Your task to perform on an android device: Open calendar and show me the third week of next month Image 0: 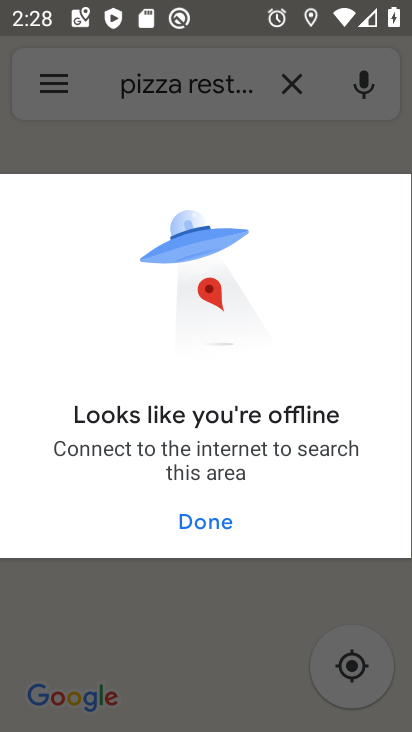
Step 0: drag from (212, 666) to (319, 217)
Your task to perform on an android device: Open calendar and show me the third week of next month Image 1: 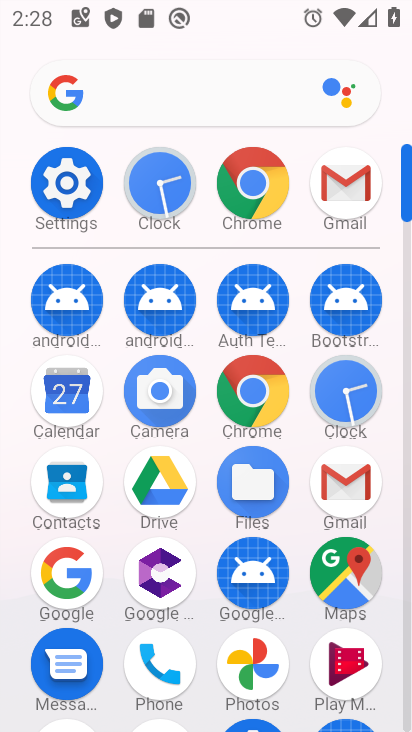
Step 1: click (66, 395)
Your task to perform on an android device: Open calendar and show me the third week of next month Image 2: 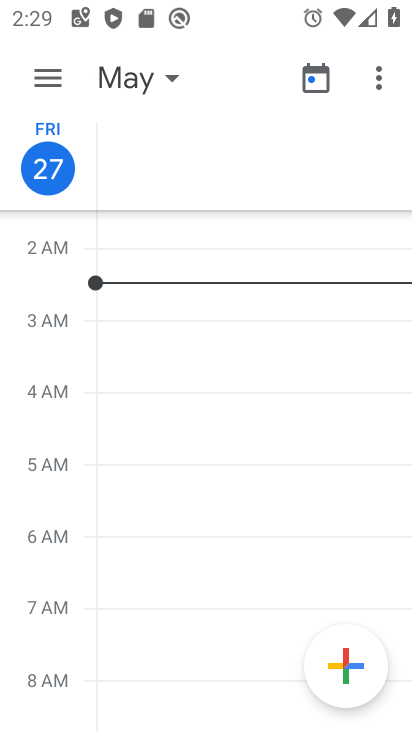
Step 2: click (56, 85)
Your task to perform on an android device: Open calendar and show me the third week of next month Image 3: 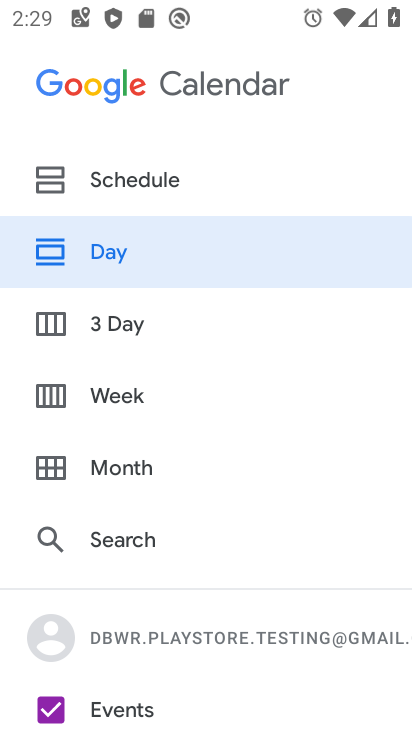
Step 3: drag from (131, 570) to (183, 321)
Your task to perform on an android device: Open calendar and show me the third week of next month Image 4: 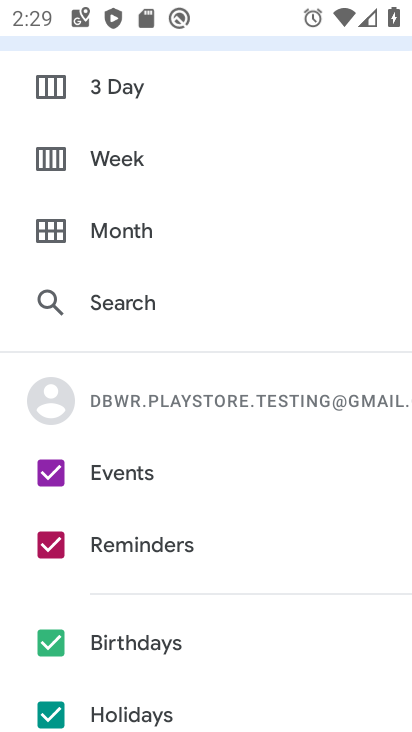
Step 4: press back button
Your task to perform on an android device: Open calendar and show me the third week of next month Image 5: 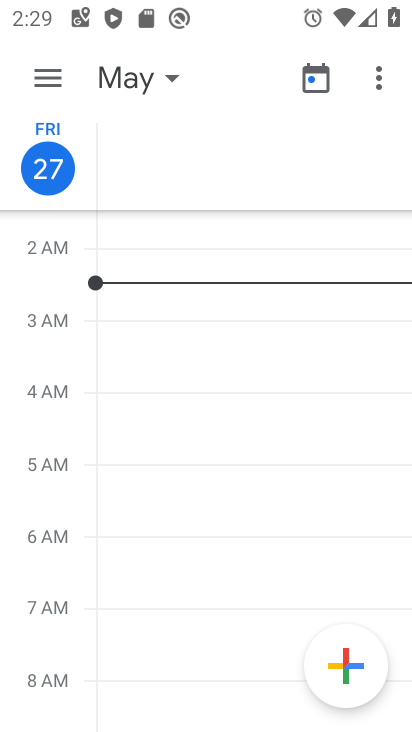
Step 5: click (175, 88)
Your task to perform on an android device: Open calendar and show me the third week of next month Image 6: 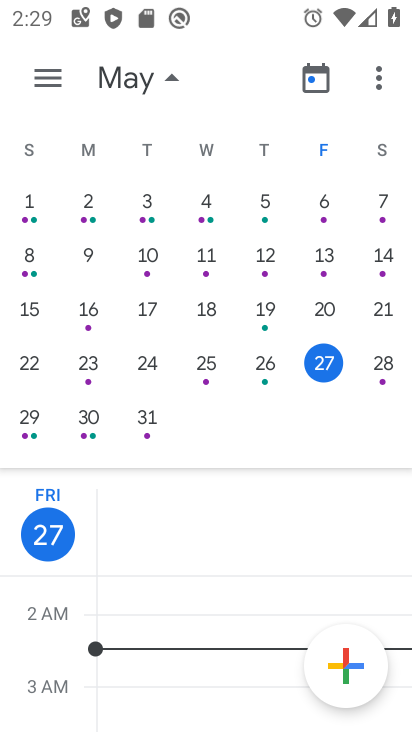
Step 6: drag from (236, 346) to (2, 306)
Your task to perform on an android device: Open calendar and show me the third week of next month Image 7: 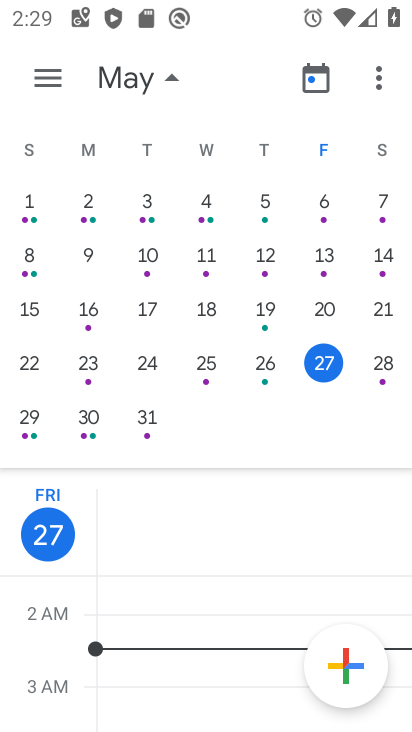
Step 7: drag from (329, 359) to (7, 282)
Your task to perform on an android device: Open calendar and show me the third week of next month Image 8: 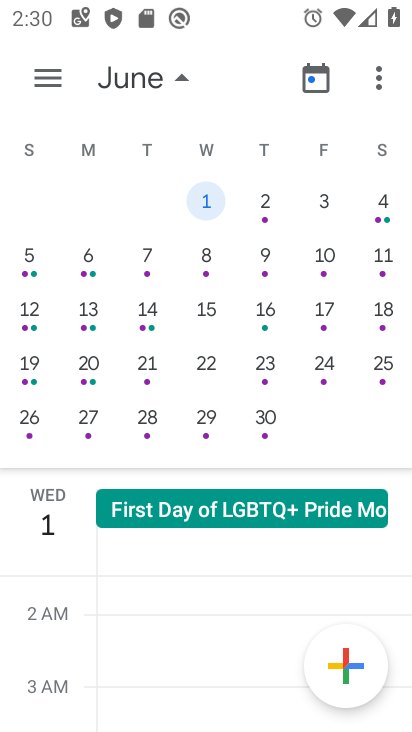
Step 8: click (229, 333)
Your task to perform on an android device: Open calendar and show me the third week of next month Image 9: 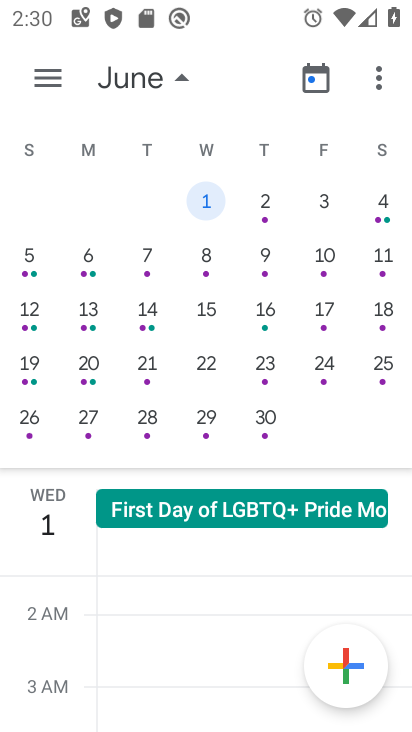
Step 9: click (25, 327)
Your task to perform on an android device: Open calendar and show me the third week of next month Image 10: 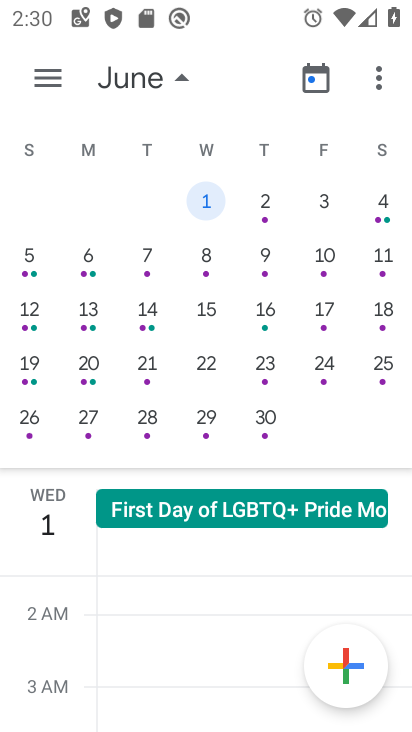
Step 10: click (32, 321)
Your task to perform on an android device: Open calendar and show me the third week of next month Image 11: 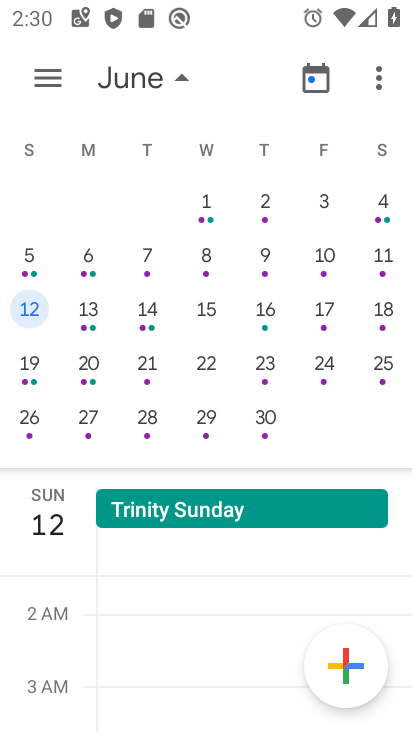
Step 11: task complete